Your task to perform on an android device: change the clock style Image 0: 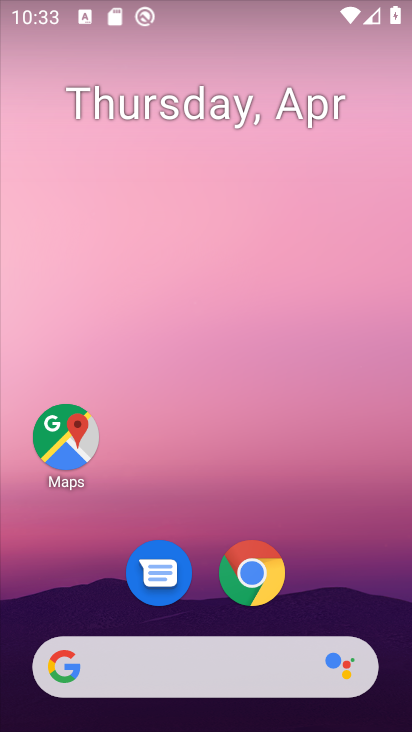
Step 0: drag from (341, 619) to (259, 99)
Your task to perform on an android device: change the clock style Image 1: 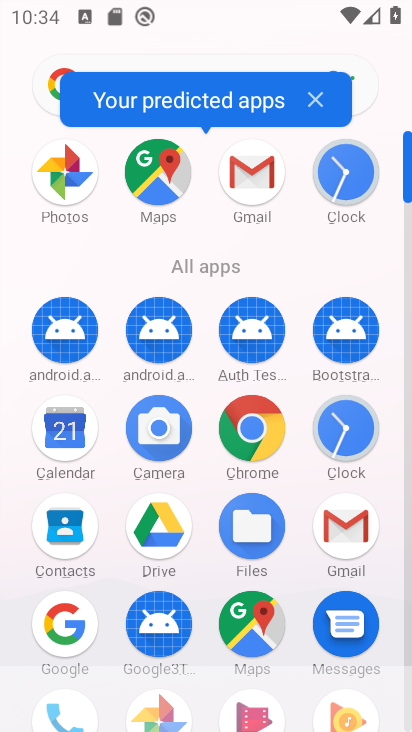
Step 1: click (341, 171)
Your task to perform on an android device: change the clock style Image 2: 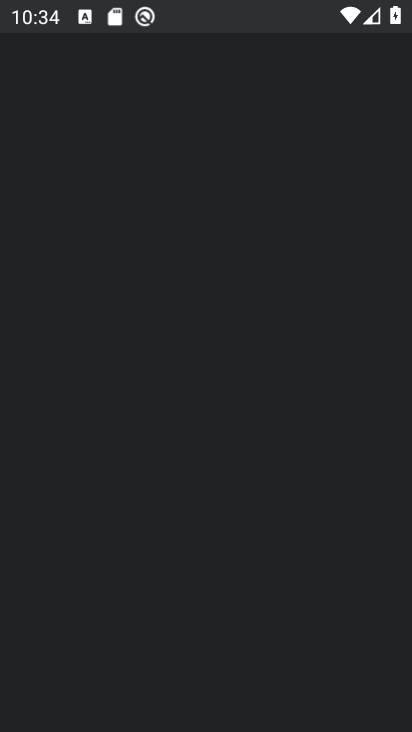
Step 2: click (341, 171)
Your task to perform on an android device: change the clock style Image 3: 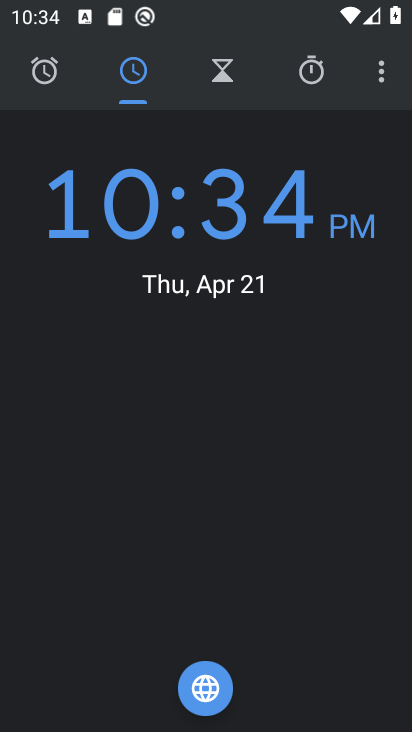
Step 3: click (376, 73)
Your task to perform on an android device: change the clock style Image 4: 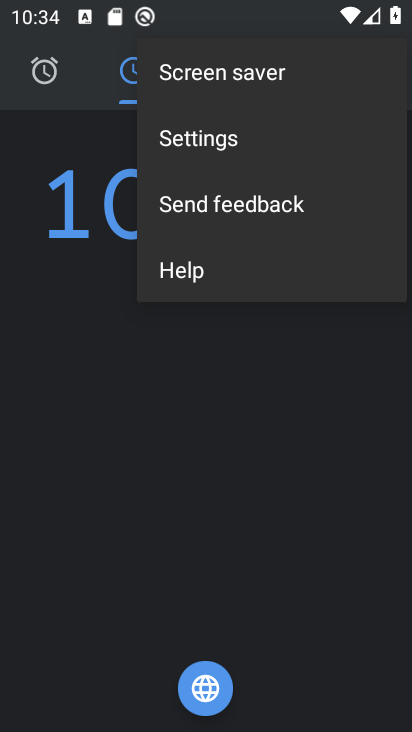
Step 4: click (280, 138)
Your task to perform on an android device: change the clock style Image 5: 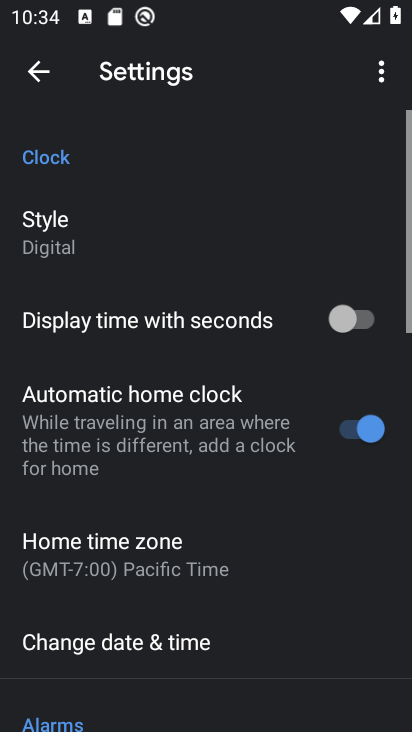
Step 5: click (145, 251)
Your task to perform on an android device: change the clock style Image 6: 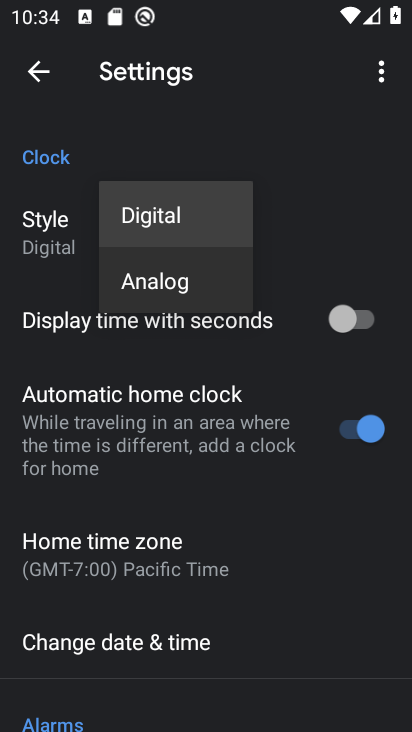
Step 6: click (170, 295)
Your task to perform on an android device: change the clock style Image 7: 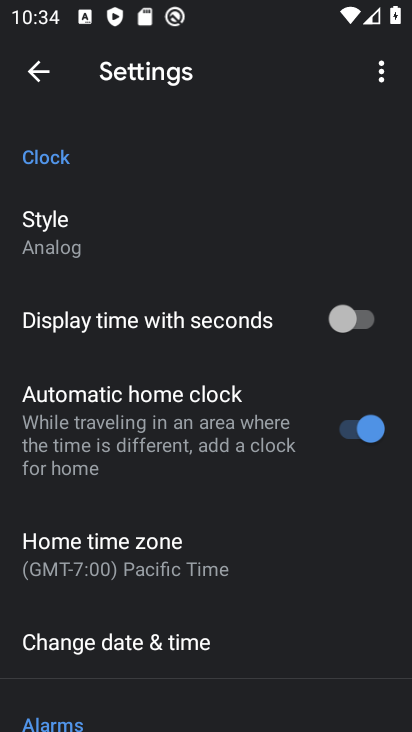
Step 7: task complete